Your task to perform on an android device: Go to sound settings Image 0: 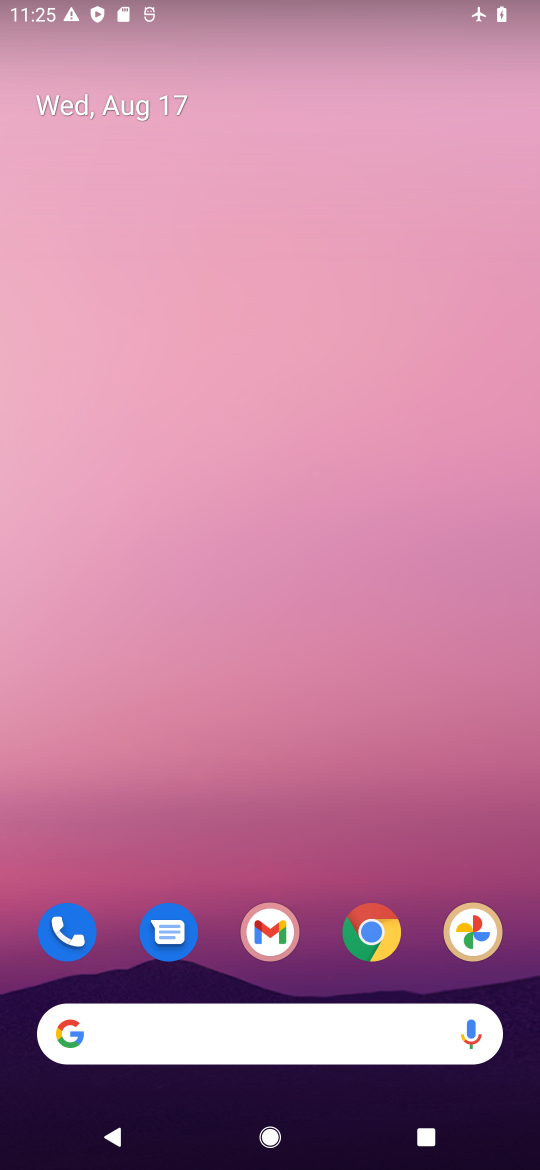
Step 0: drag from (262, 859) to (297, 169)
Your task to perform on an android device: Go to sound settings Image 1: 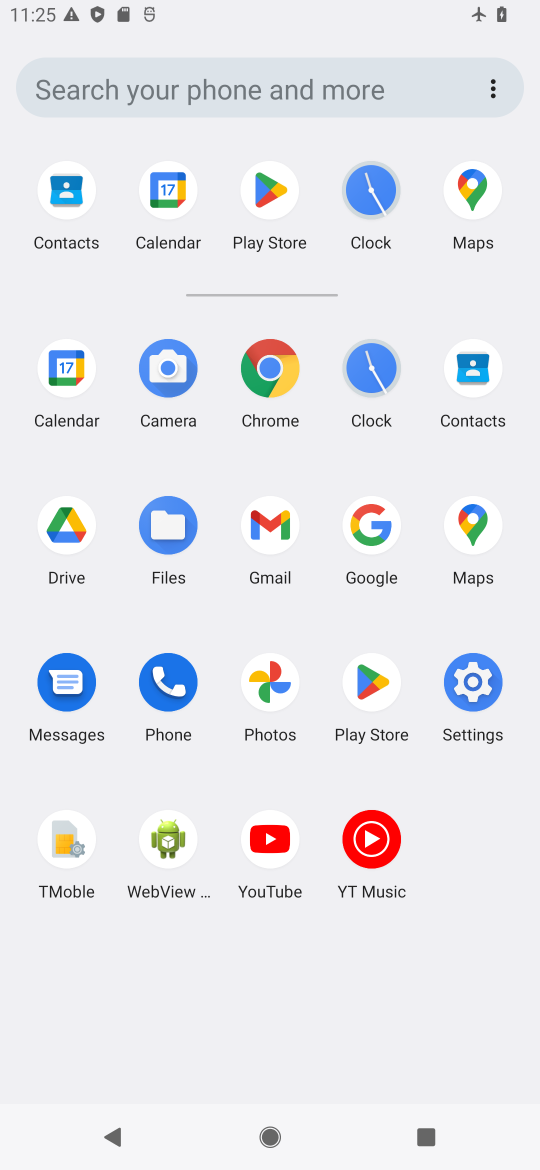
Step 1: click (471, 689)
Your task to perform on an android device: Go to sound settings Image 2: 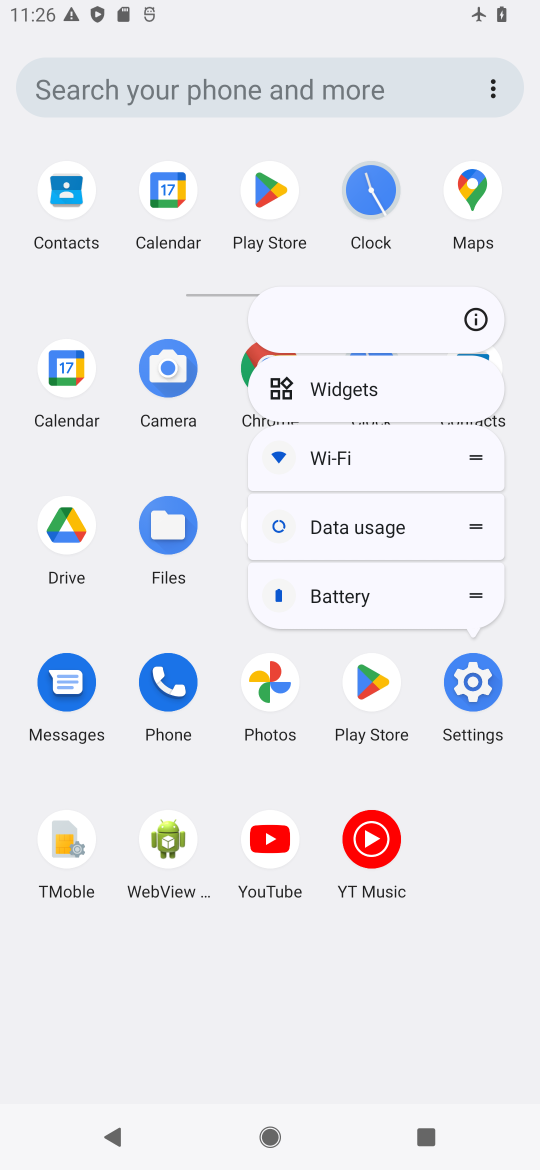
Step 2: click (471, 689)
Your task to perform on an android device: Go to sound settings Image 3: 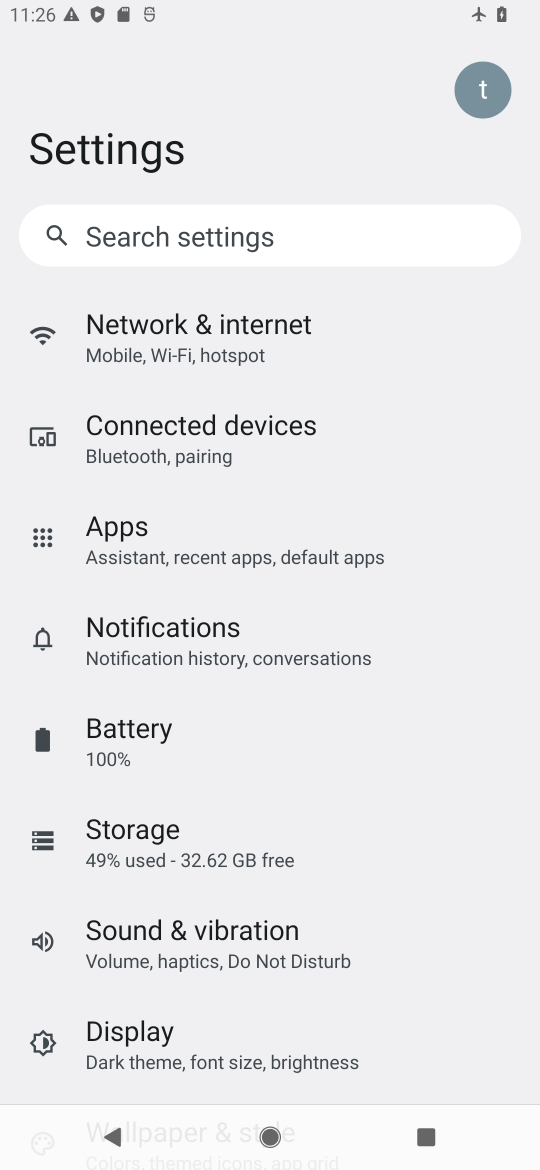
Step 3: drag from (233, 873) to (281, 383)
Your task to perform on an android device: Go to sound settings Image 4: 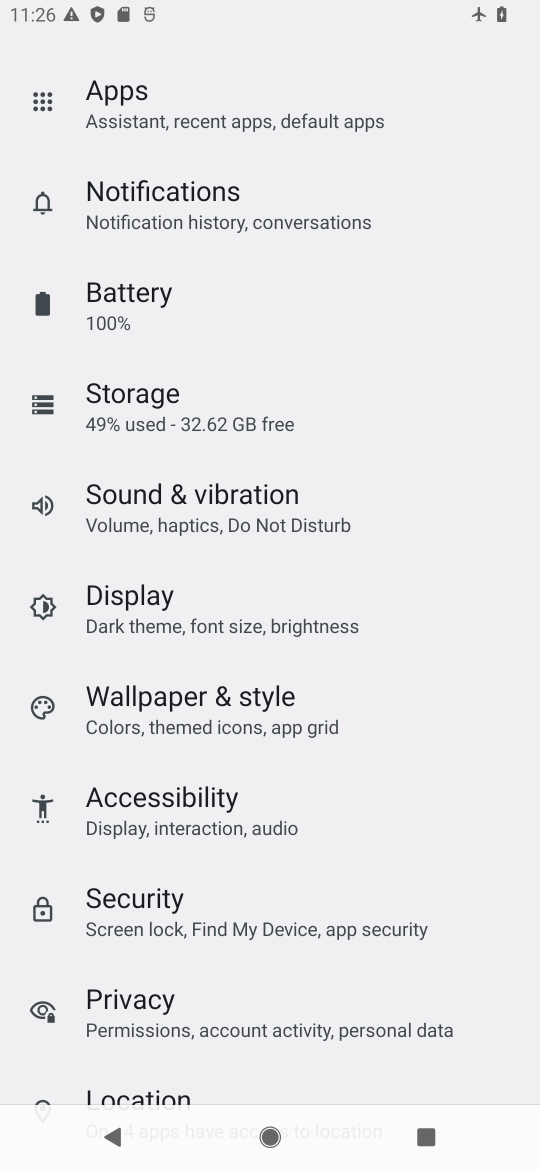
Step 4: click (224, 520)
Your task to perform on an android device: Go to sound settings Image 5: 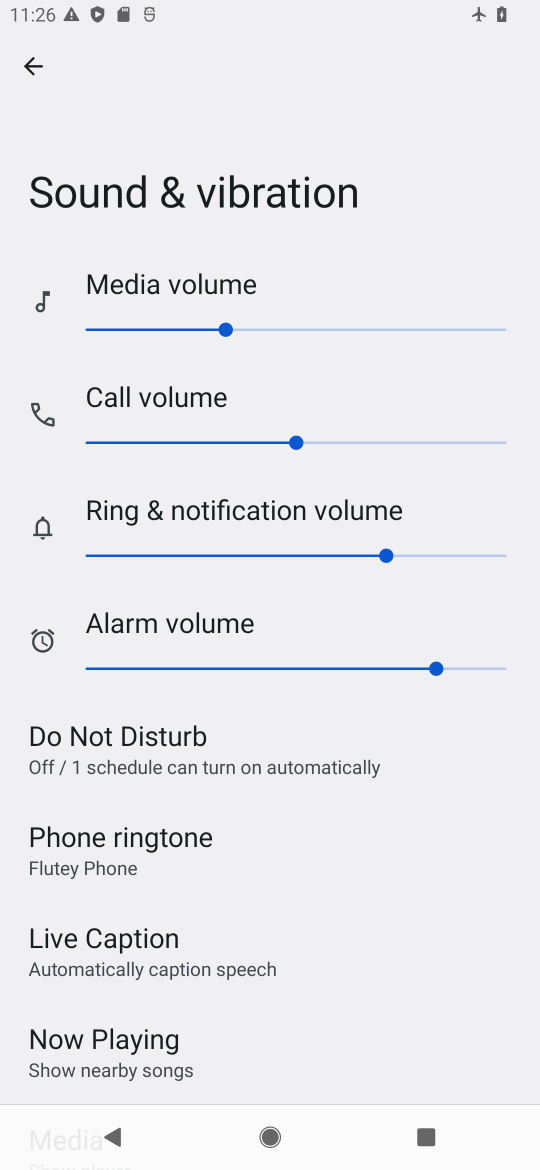
Step 5: task complete